Your task to perform on an android device: Go to Maps Image 0: 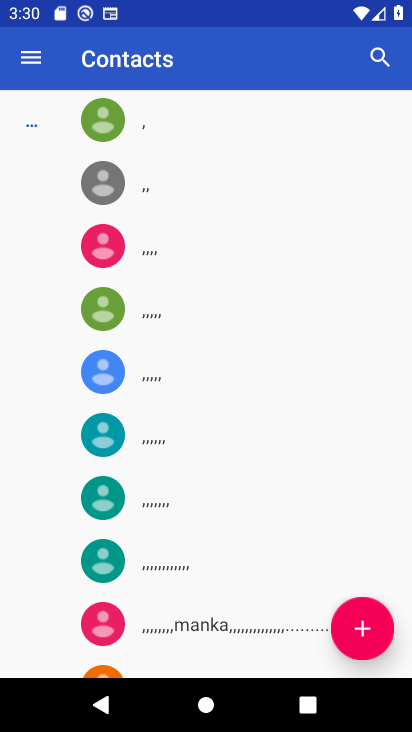
Step 0: press home button
Your task to perform on an android device: Go to Maps Image 1: 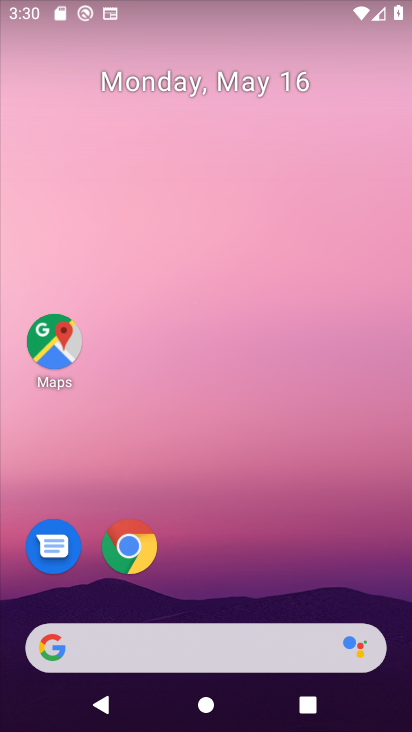
Step 1: drag from (369, 583) to (370, 131)
Your task to perform on an android device: Go to Maps Image 2: 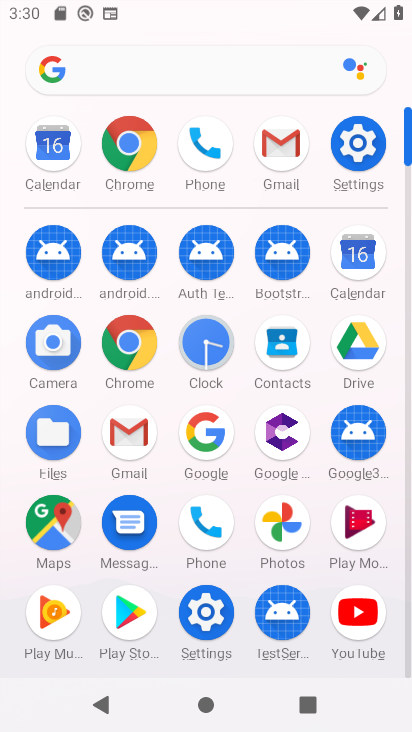
Step 2: click (54, 524)
Your task to perform on an android device: Go to Maps Image 3: 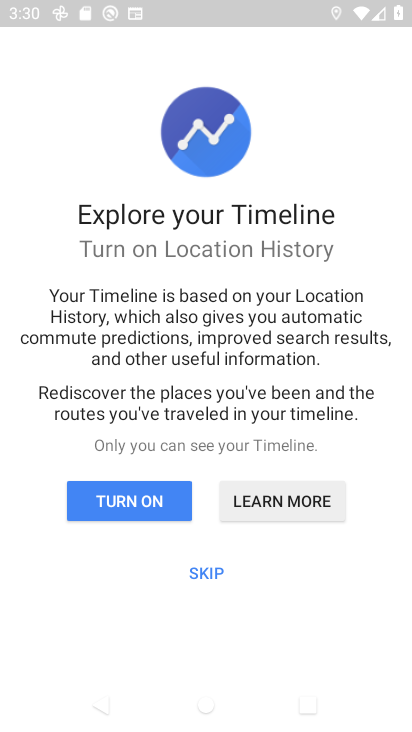
Step 3: click (222, 573)
Your task to perform on an android device: Go to Maps Image 4: 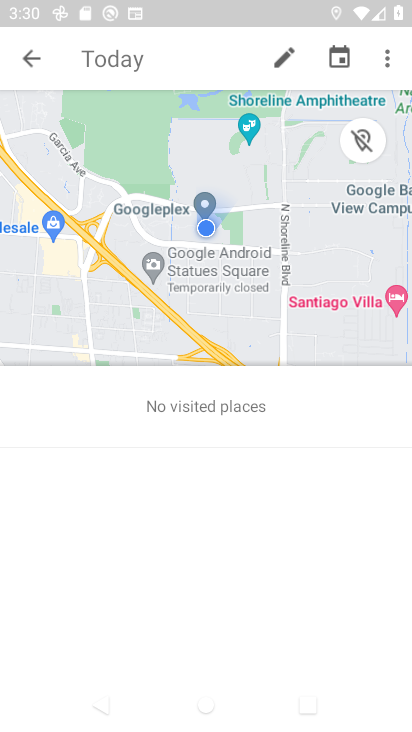
Step 4: task complete